Your task to perform on an android device: check battery use Image 0: 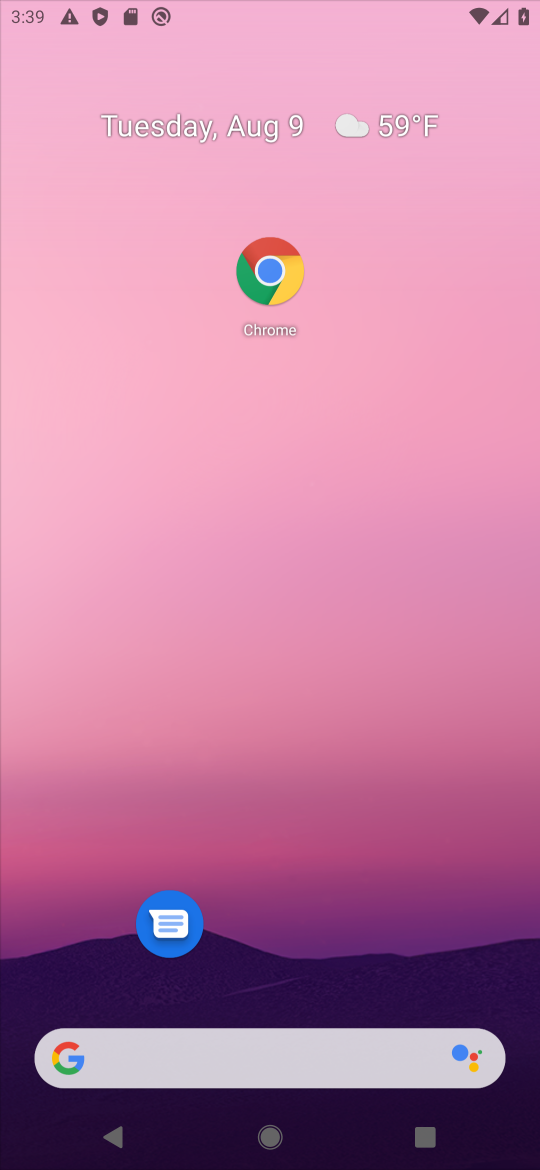
Step 0: click (292, 208)
Your task to perform on an android device: check battery use Image 1: 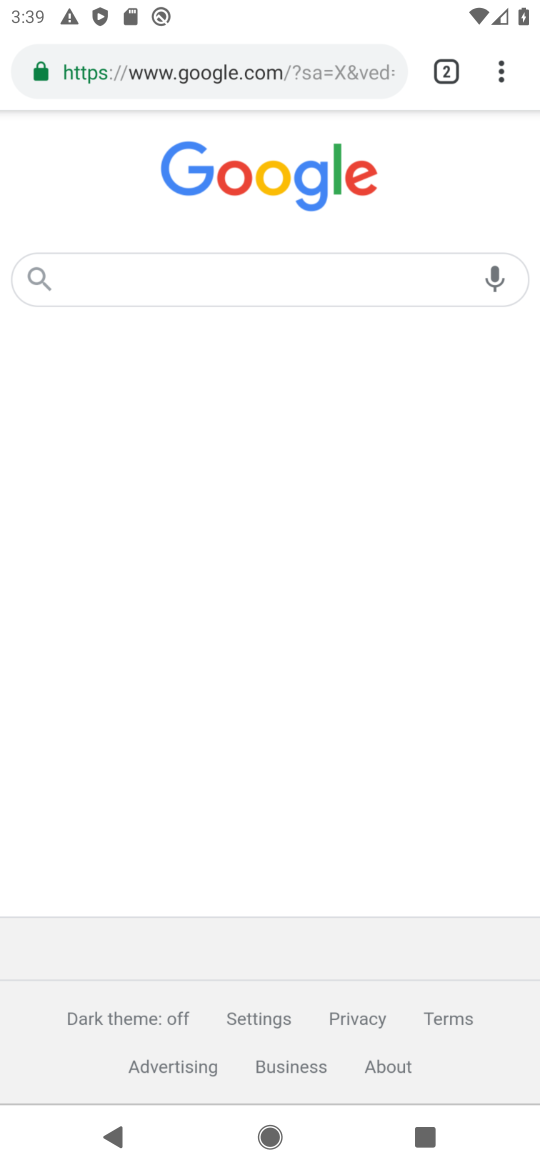
Step 1: drag from (292, 984) to (262, 228)
Your task to perform on an android device: check battery use Image 2: 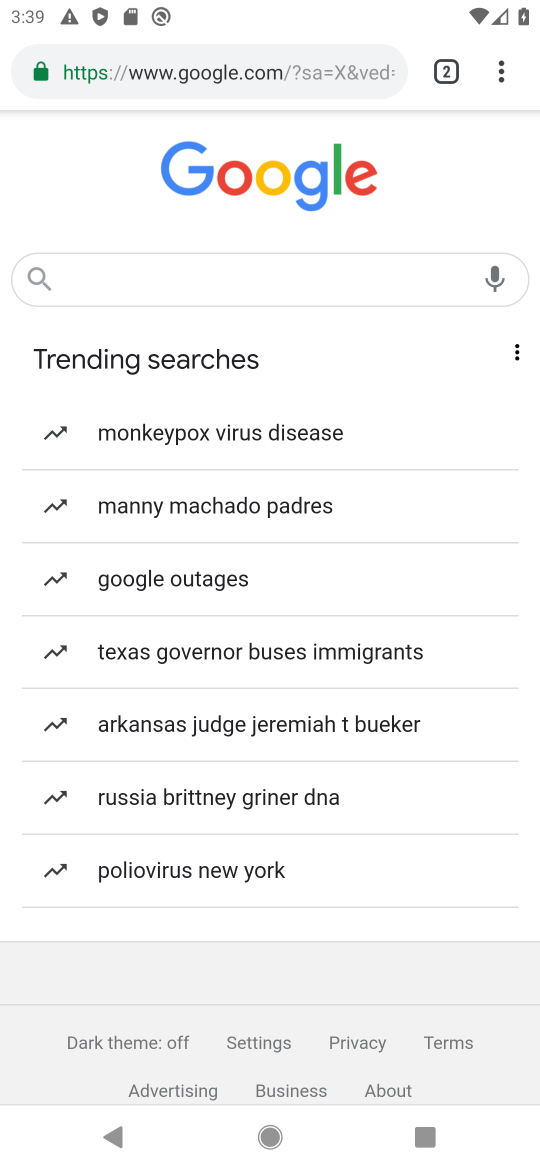
Step 2: press back button
Your task to perform on an android device: check battery use Image 3: 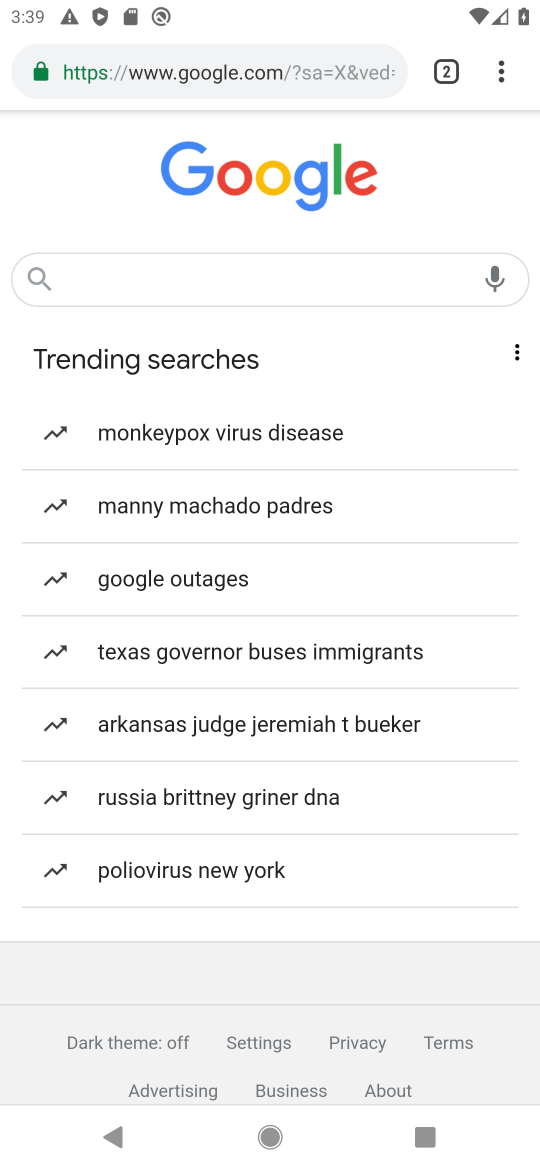
Step 3: press back button
Your task to perform on an android device: check battery use Image 4: 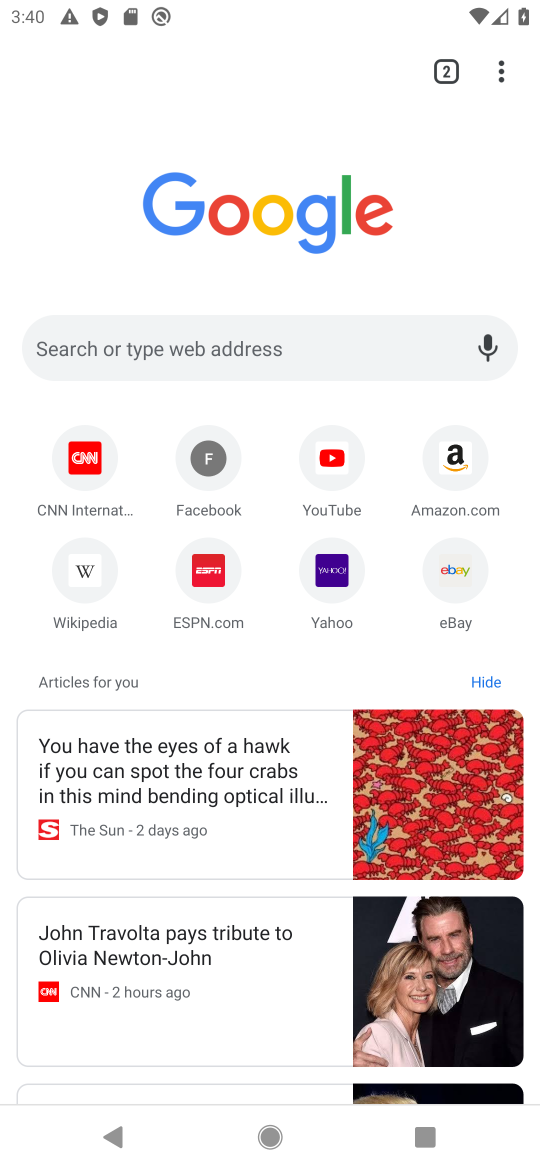
Step 4: press back button
Your task to perform on an android device: check battery use Image 5: 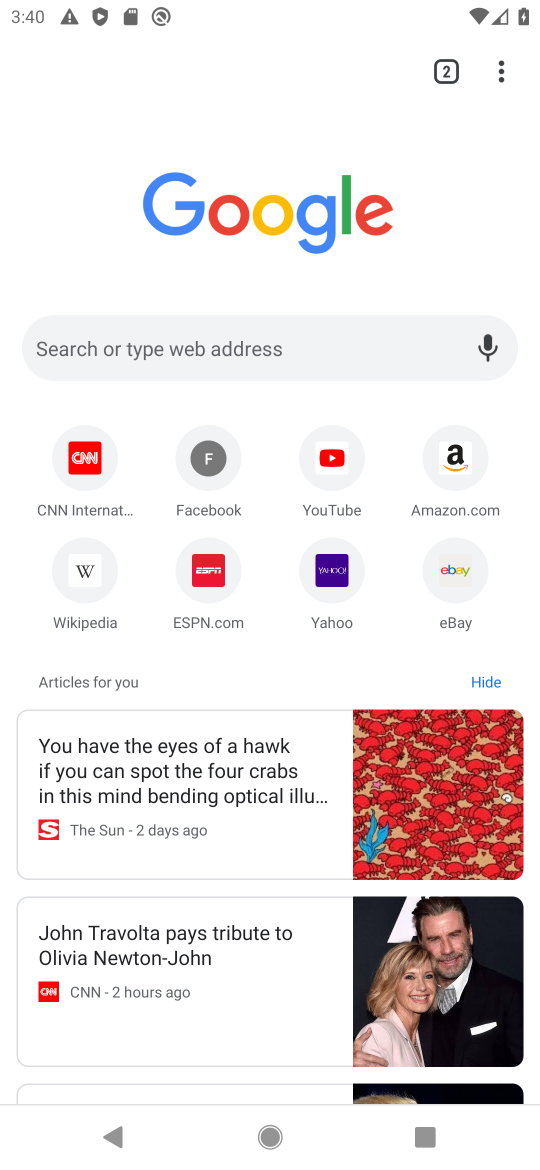
Step 5: press back button
Your task to perform on an android device: check battery use Image 6: 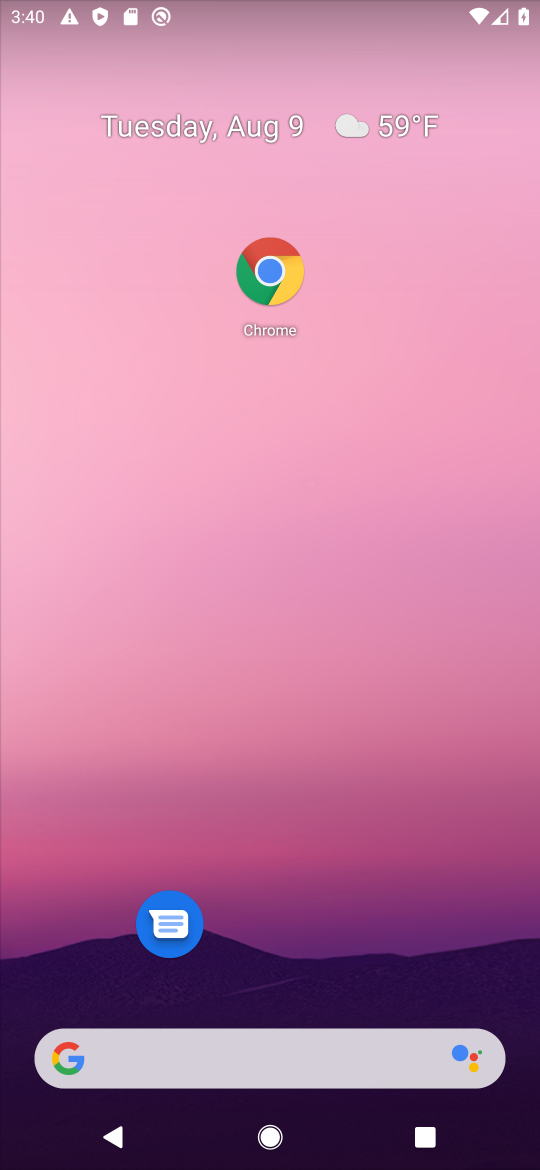
Step 6: drag from (378, 1089) to (243, 204)
Your task to perform on an android device: check battery use Image 7: 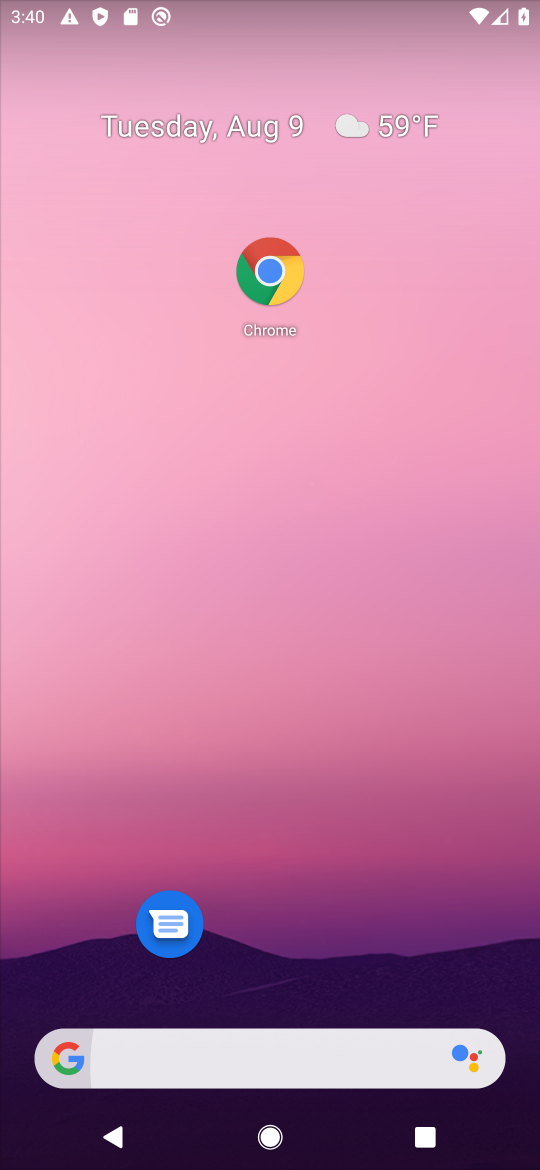
Step 7: drag from (253, 781) to (290, 46)
Your task to perform on an android device: check battery use Image 8: 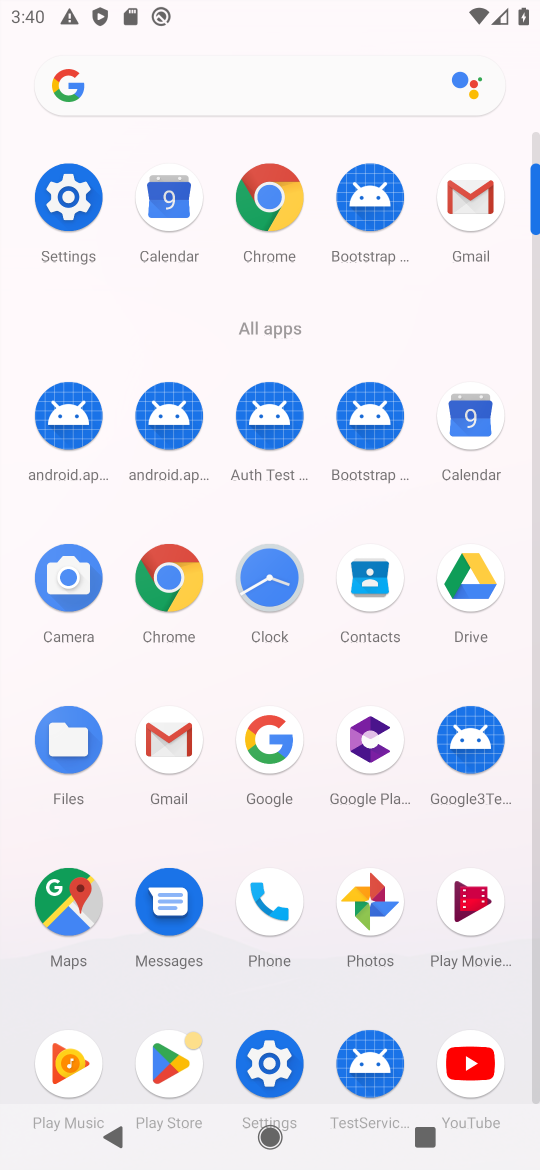
Step 8: click (80, 202)
Your task to perform on an android device: check battery use Image 9: 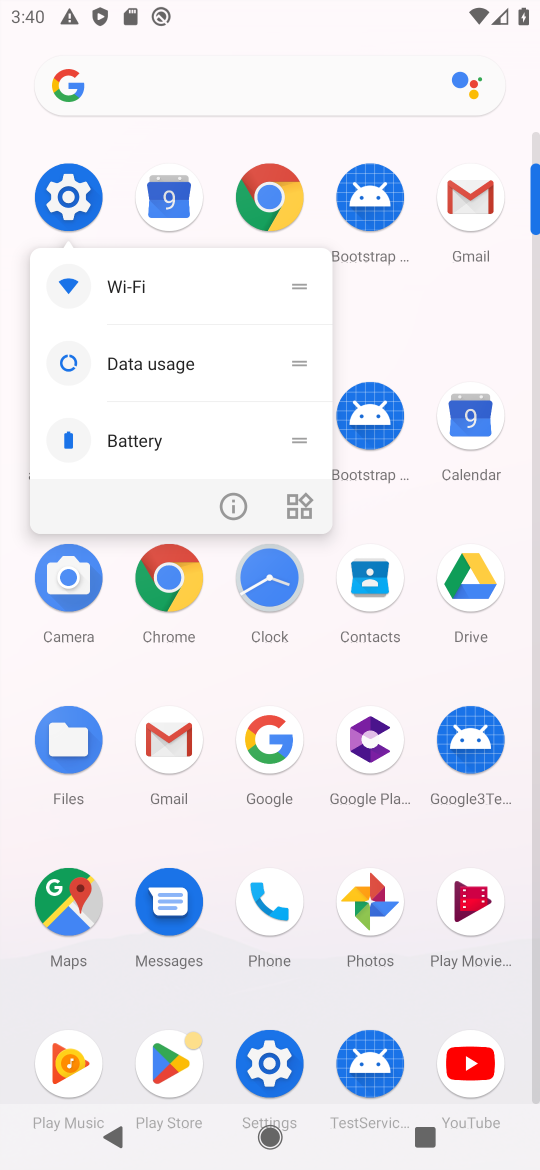
Step 9: click (80, 202)
Your task to perform on an android device: check battery use Image 10: 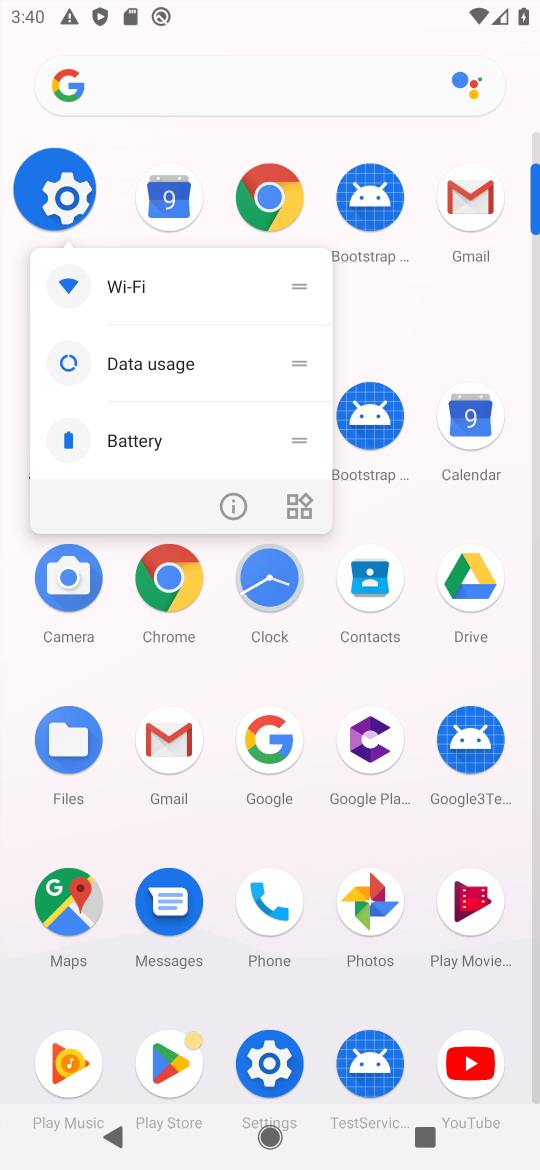
Step 10: click (66, 194)
Your task to perform on an android device: check battery use Image 11: 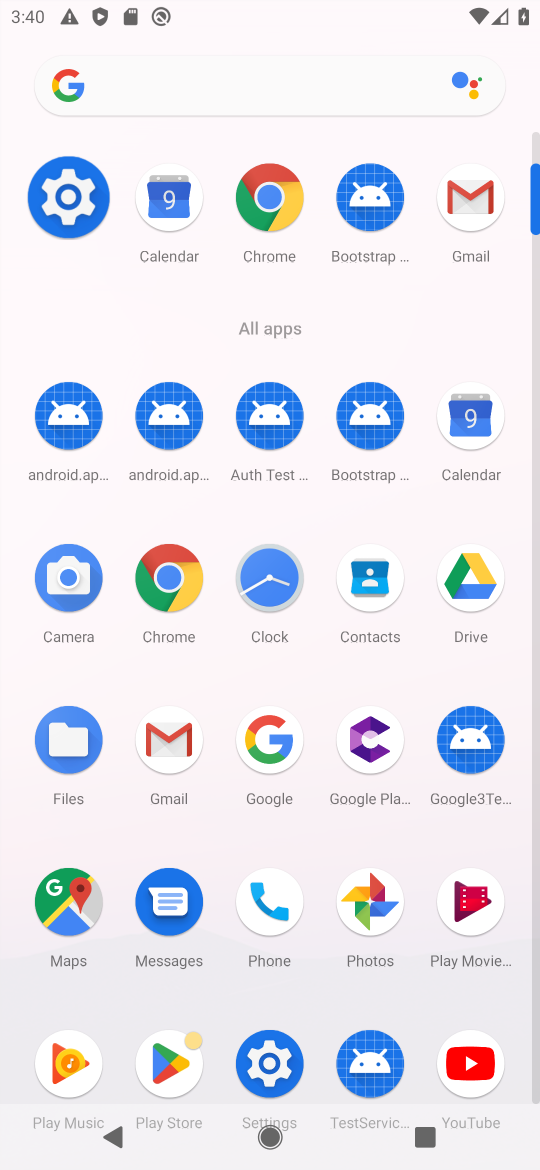
Step 11: click (69, 194)
Your task to perform on an android device: check battery use Image 12: 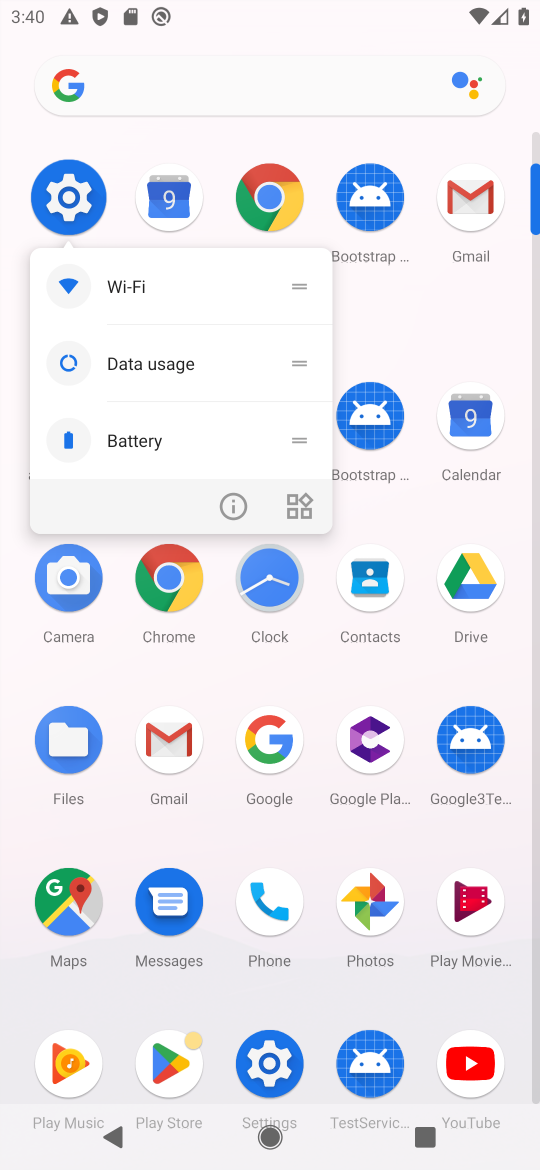
Step 12: click (78, 195)
Your task to perform on an android device: check battery use Image 13: 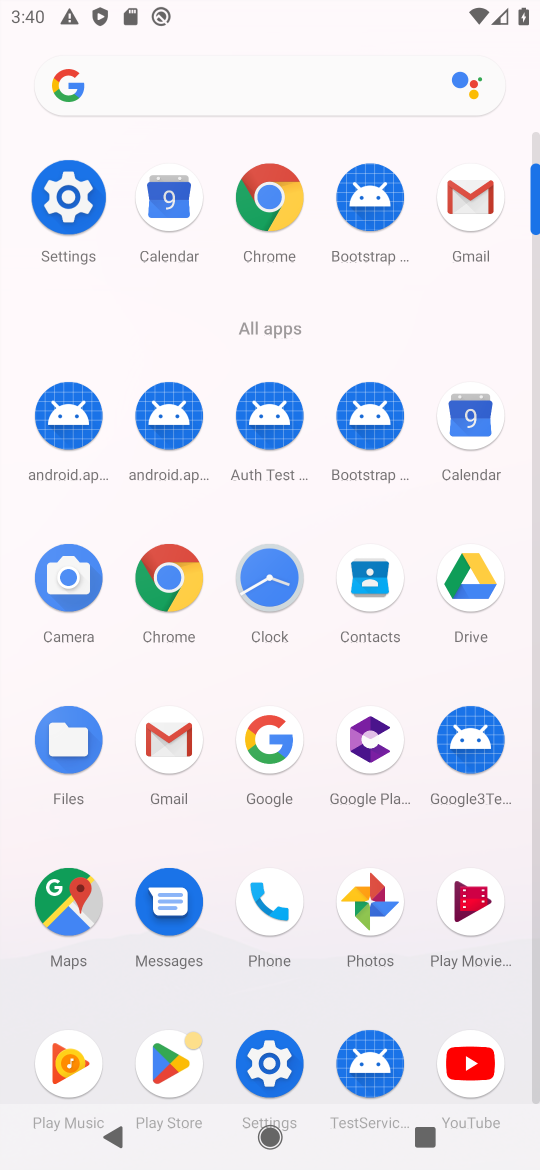
Step 13: click (85, 226)
Your task to perform on an android device: check battery use Image 14: 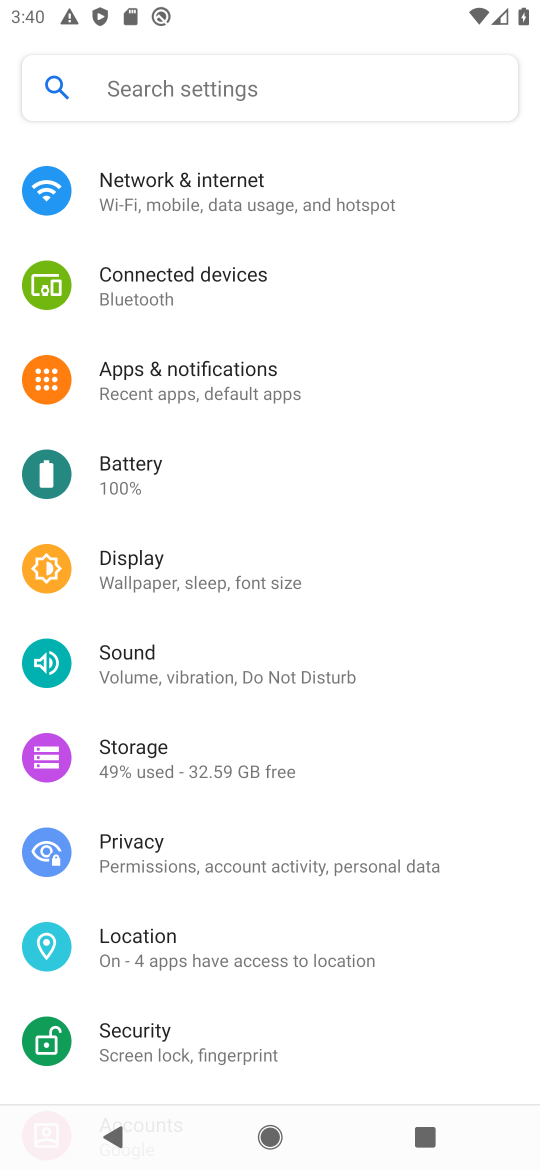
Step 14: click (76, 218)
Your task to perform on an android device: check battery use Image 15: 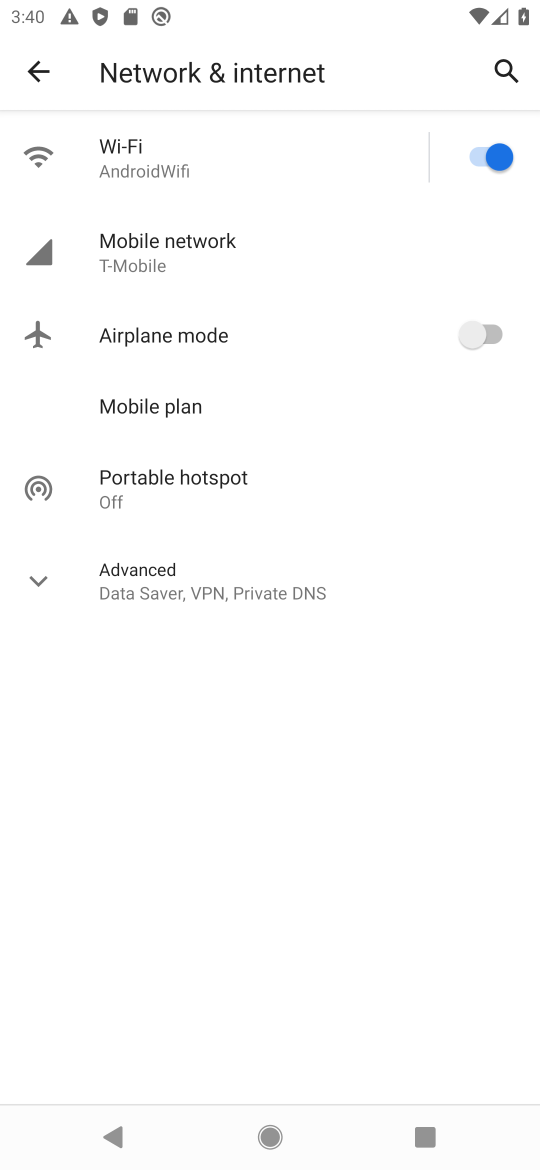
Step 15: click (39, 69)
Your task to perform on an android device: check battery use Image 16: 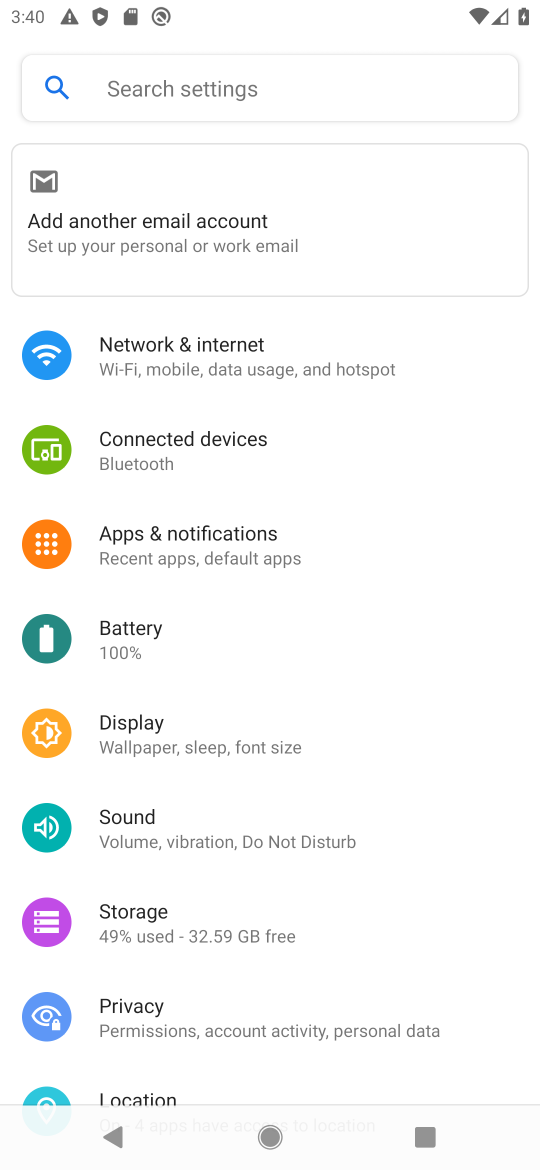
Step 16: click (130, 636)
Your task to perform on an android device: check battery use Image 17: 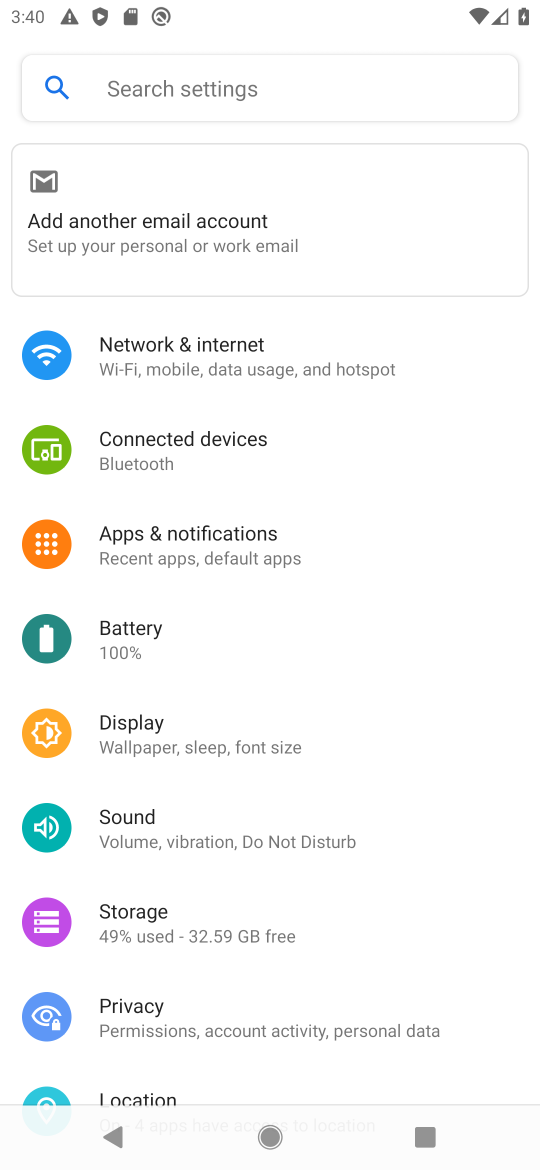
Step 17: click (127, 637)
Your task to perform on an android device: check battery use Image 18: 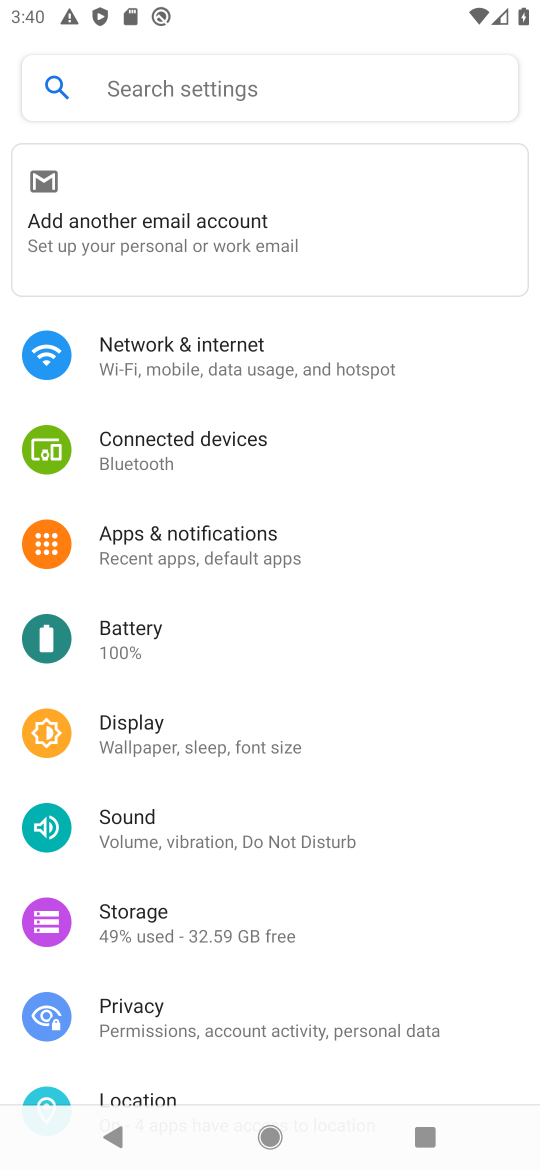
Step 18: click (127, 637)
Your task to perform on an android device: check battery use Image 19: 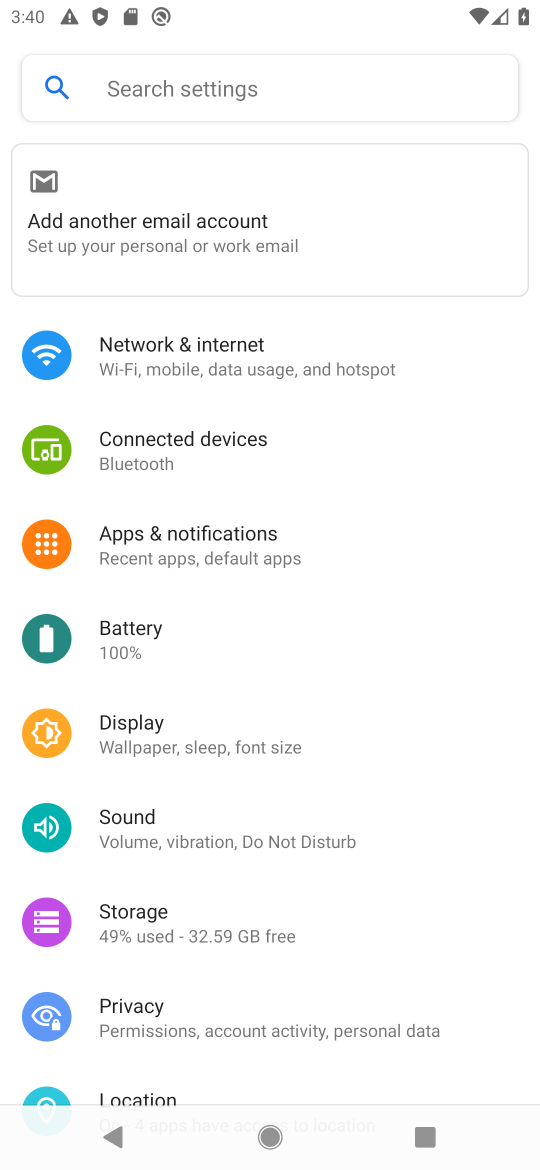
Step 19: click (130, 639)
Your task to perform on an android device: check battery use Image 20: 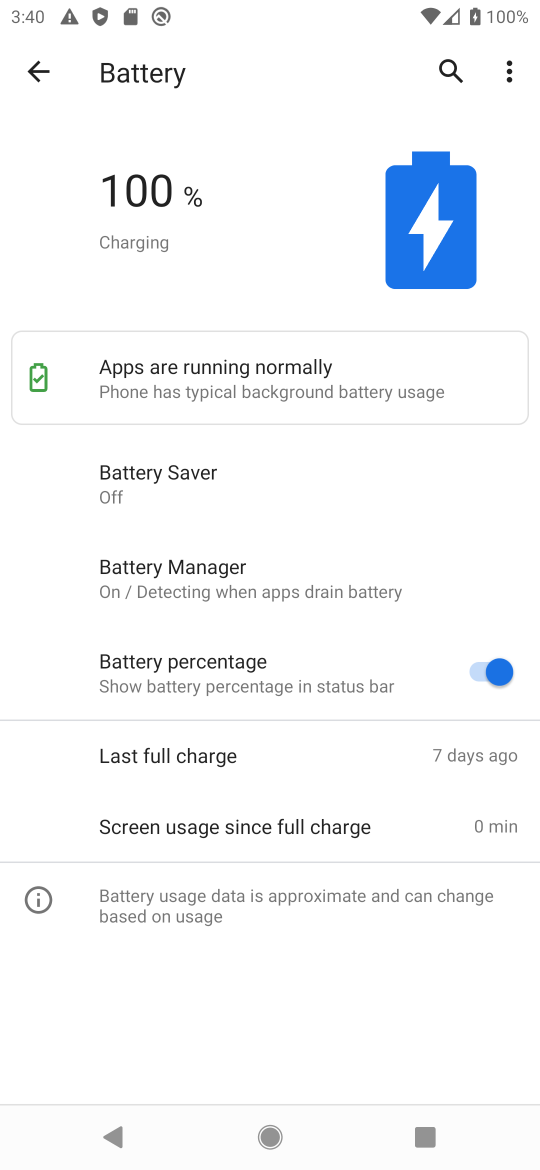
Step 20: click (41, 77)
Your task to perform on an android device: check battery use Image 21: 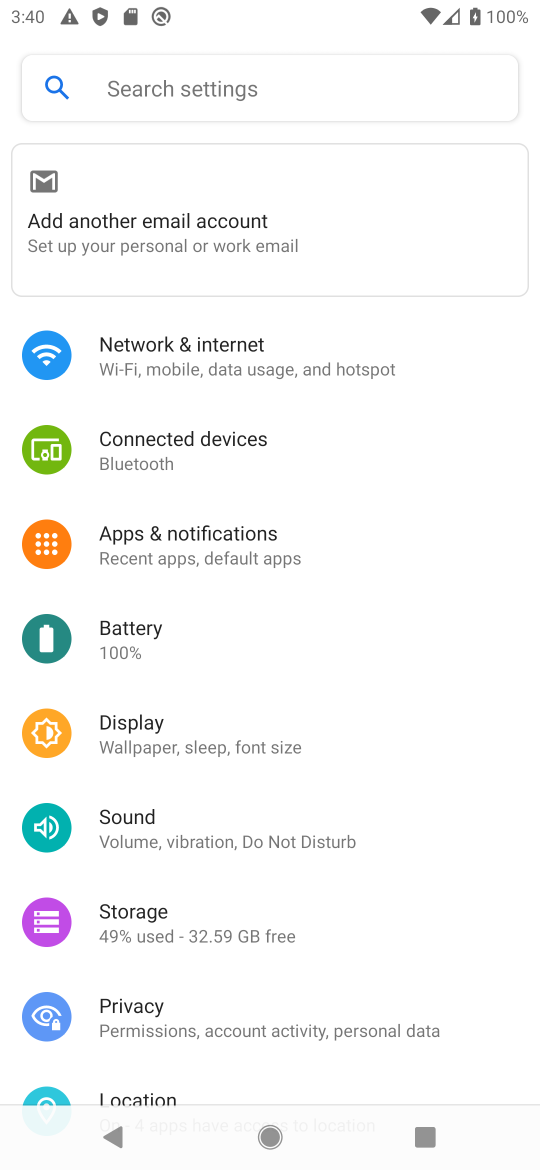
Step 21: click (134, 727)
Your task to perform on an android device: check battery use Image 22: 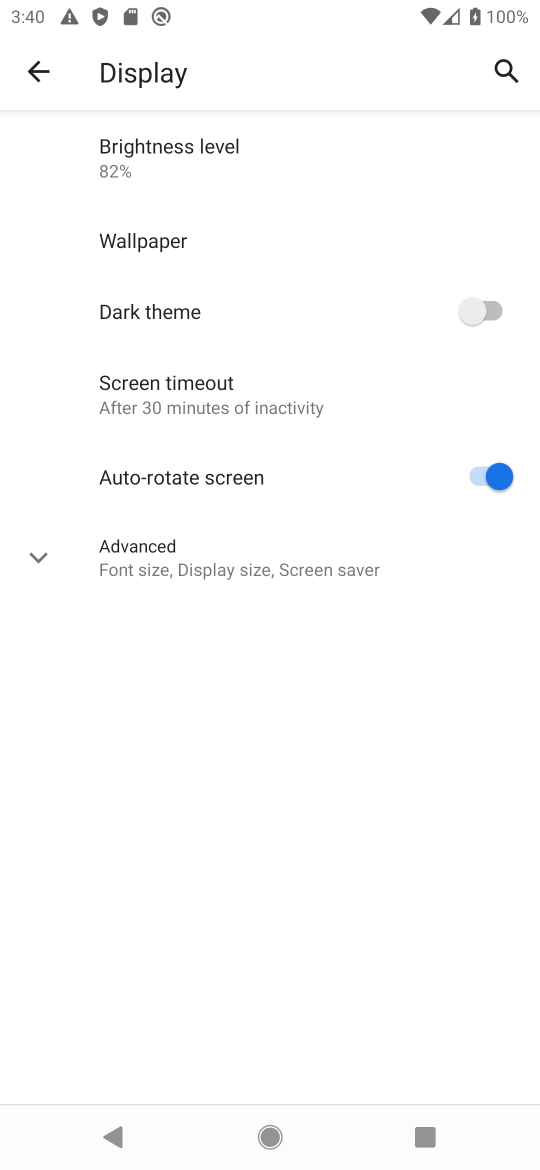
Step 22: click (160, 555)
Your task to perform on an android device: check battery use Image 23: 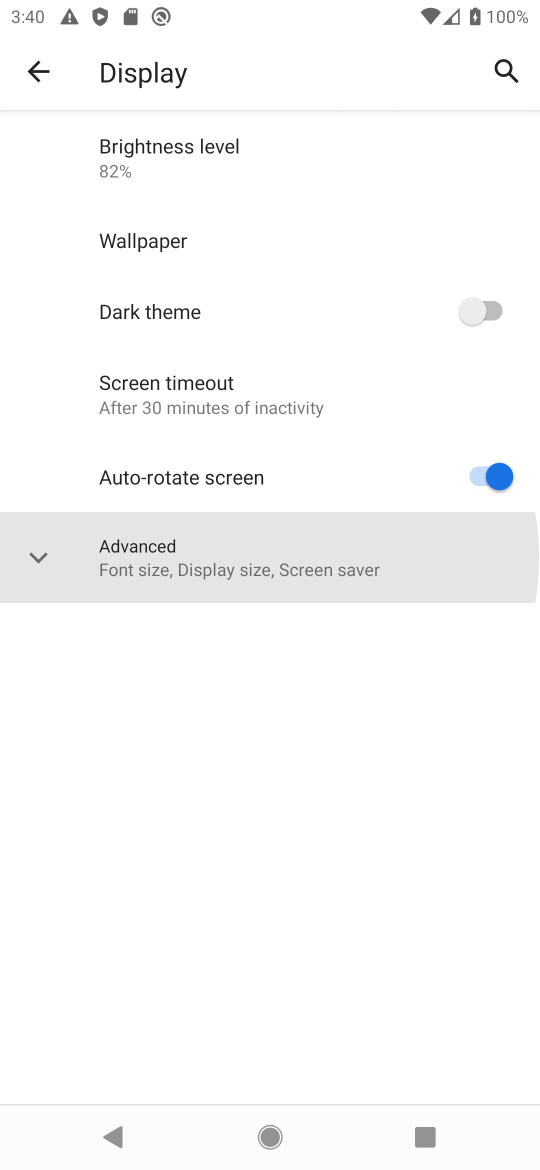
Step 23: click (172, 547)
Your task to perform on an android device: check battery use Image 24: 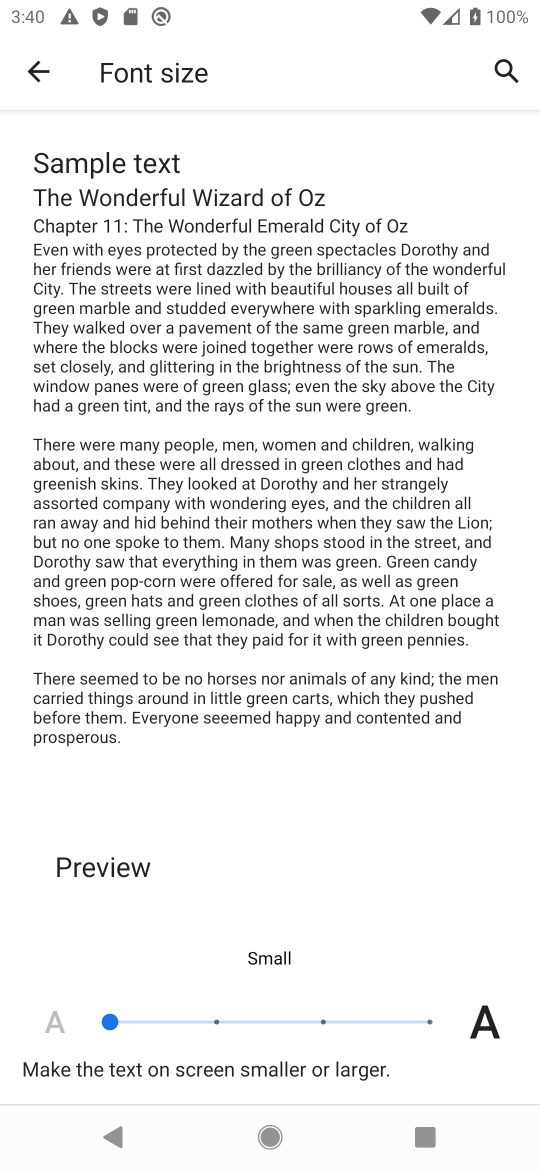
Step 24: click (415, 997)
Your task to perform on an android device: check battery use Image 25: 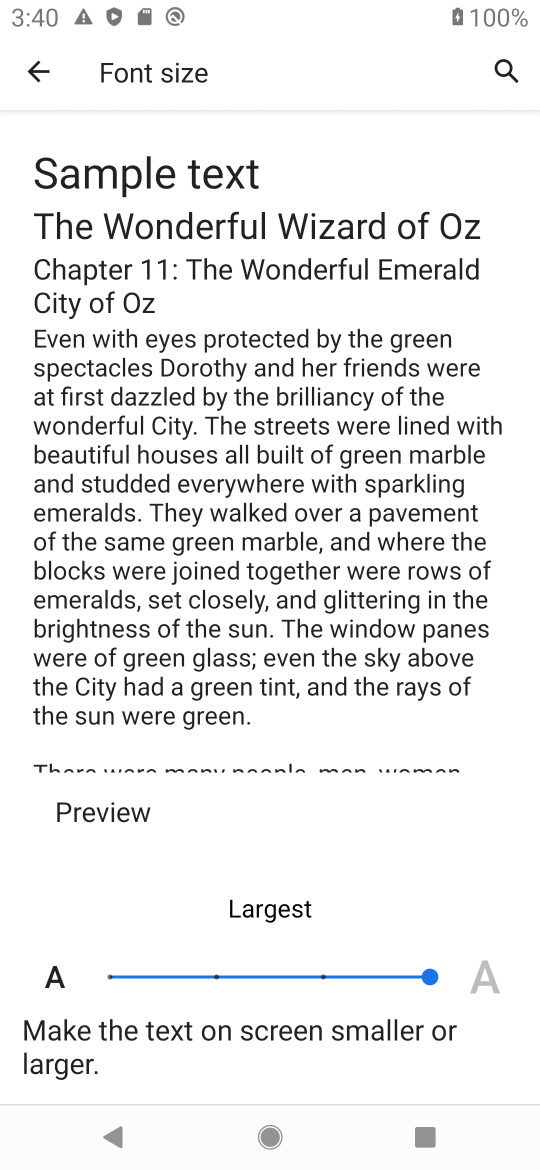
Step 25: task complete